Your task to perform on an android device: check data usage Image 0: 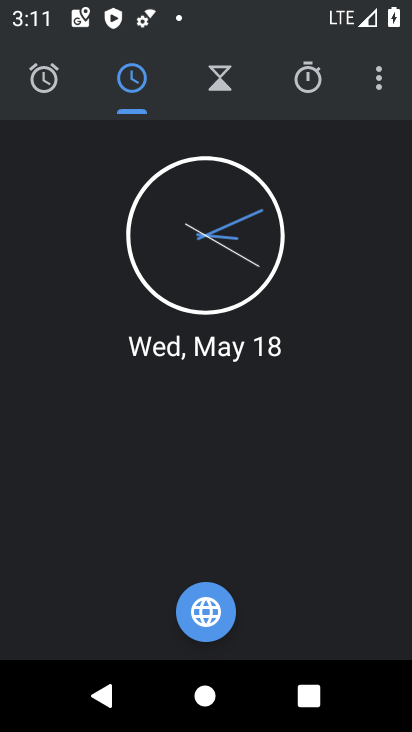
Step 0: press home button
Your task to perform on an android device: check data usage Image 1: 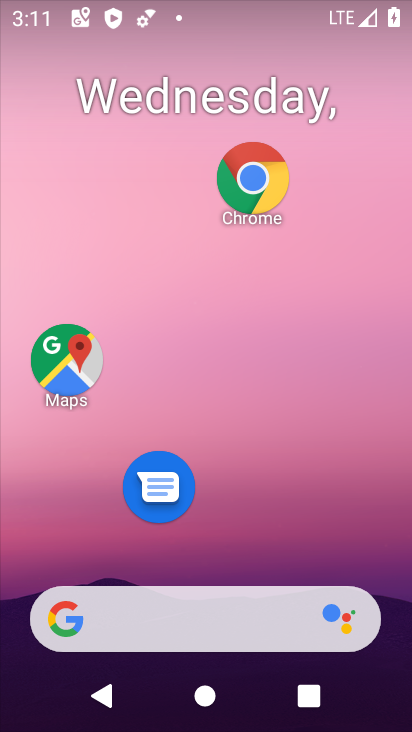
Step 1: drag from (291, 490) to (298, 11)
Your task to perform on an android device: check data usage Image 2: 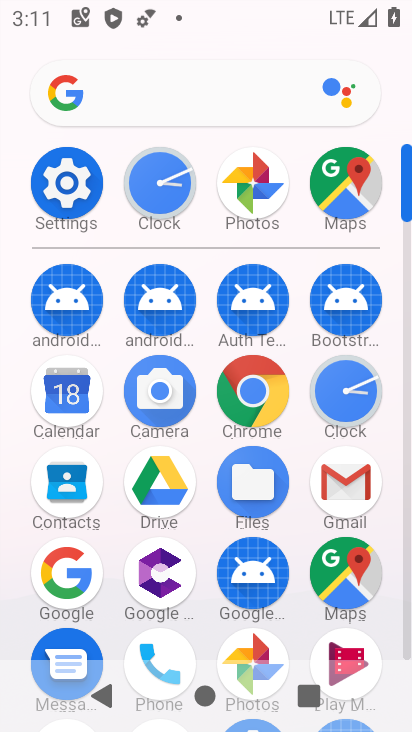
Step 2: click (78, 190)
Your task to perform on an android device: check data usage Image 3: 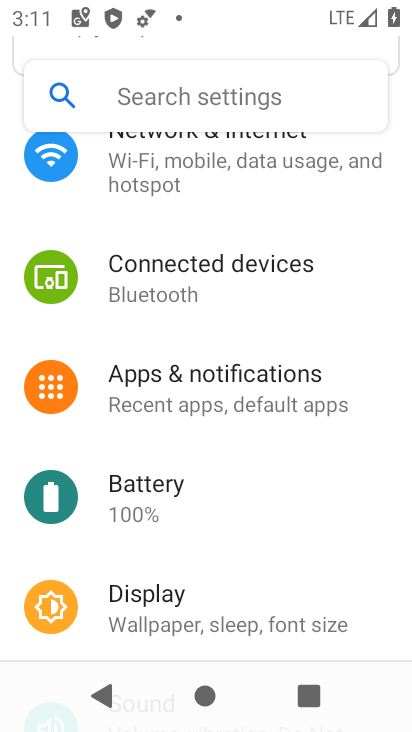
Step 3: click (177, 157)
Your task to perform on an android device: check data usage Image 4: 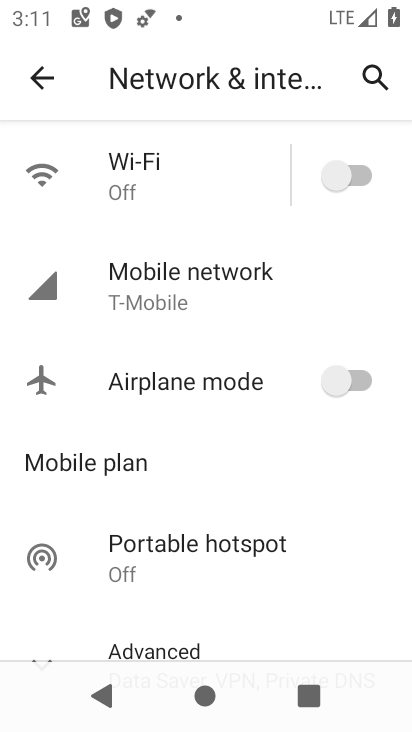
Step 4: click (154, 291)
Your task to perform on an android device: check data usage Image 5: 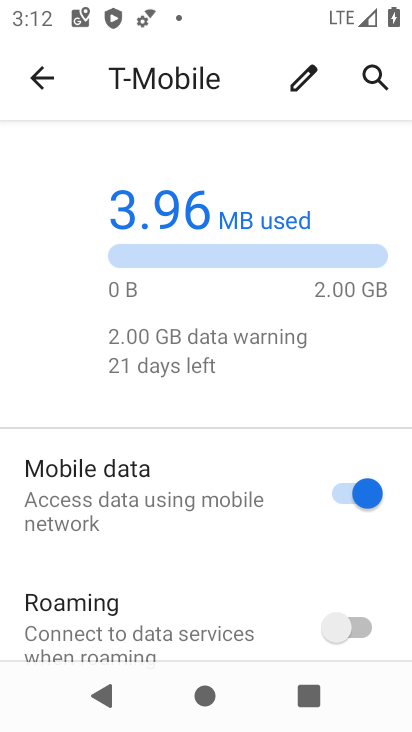
Step 5: drag from (85, 614) to (108, 339)
Your task to perform on an android device: check data usage Image 6: 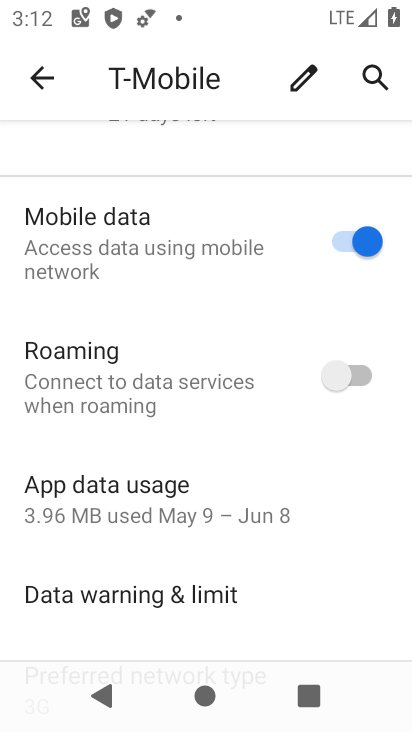
Step 6: click (128, 494)
Your task to perform on an android device: check data usage Image 7: 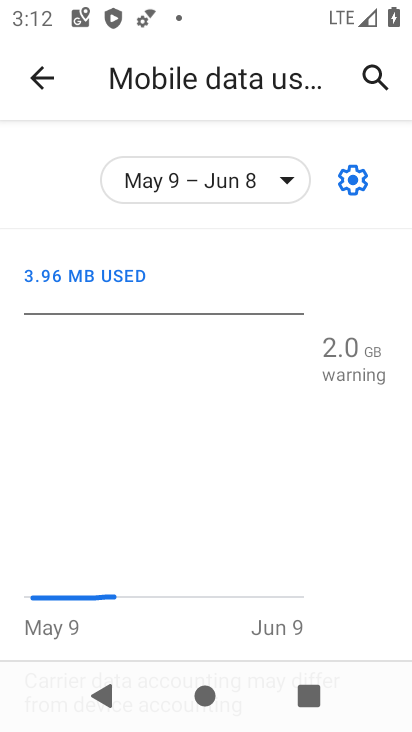
Step 7: task complete